Your task to perform on an android device: open sync settings in chrome Image 0: 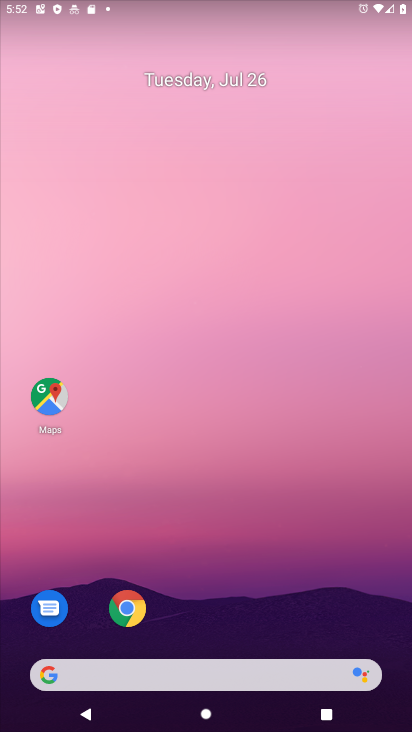
Step 0: press home button
Your task to perform on an android device: open sync settings in chrome Image 1: 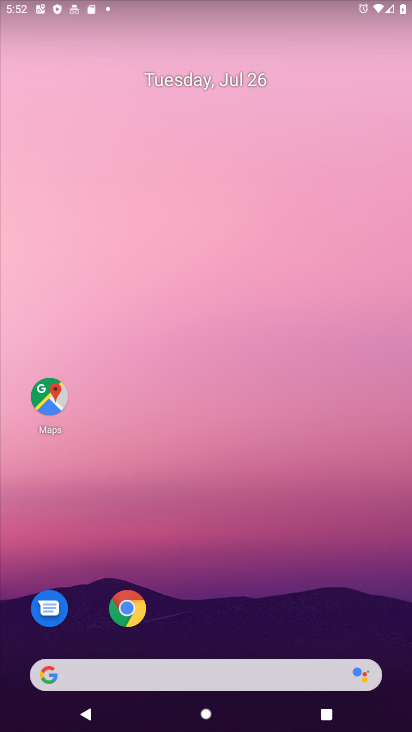
Step 1: drag from (207, 610) to (325, 24)
Your task to perform on an android device: open sync settings in chrome Image 2: 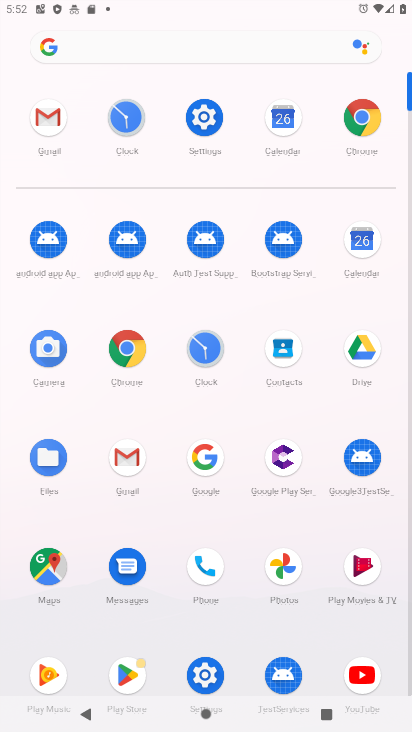
Step 2: click (358, 124)
Your task to perform on an android device: open sync settings in chrome Image 3: 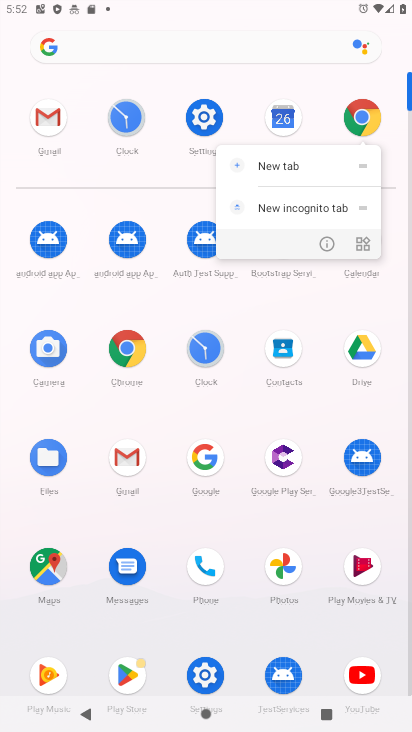
Step 3: click (358, 124)
Your task to perform on an android device: open sync settings in chrome Image 4: 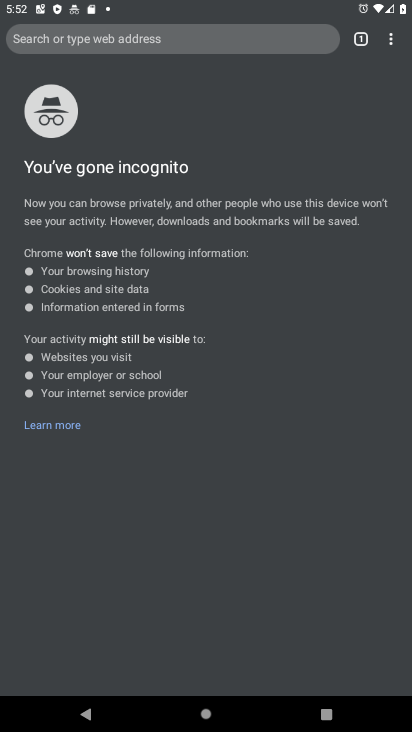
Step 4: drag from (397, 43) to (235, 287)
Your task to perform on an android device: open sync settings in chrome Image 5: 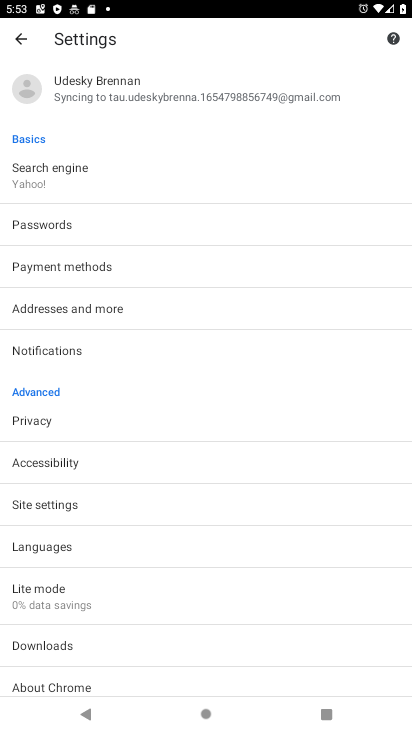
Step 5: click (144, 94)
Your task to perform on an android device: open sync settings in chrome Image 6: 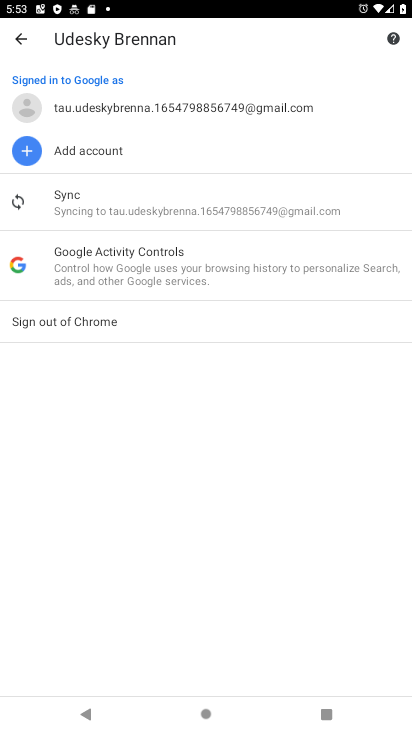
Step 6: click (60, 213)
Your task to perform on an android device: open sync settings in chrome Image 7: 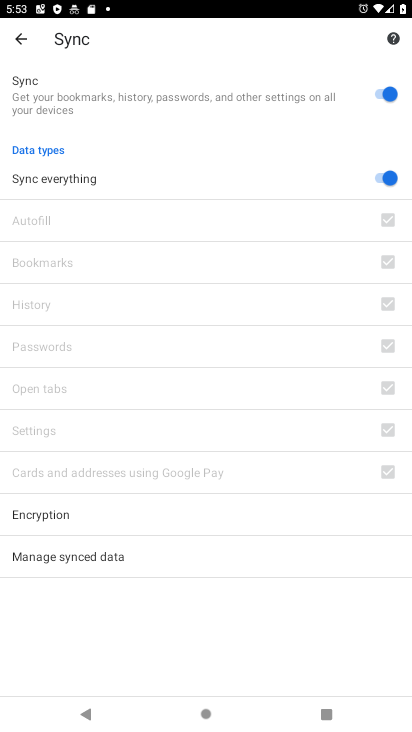
Step 7: task complete